Your task to perform on an android device: Go to display settings Image 0: 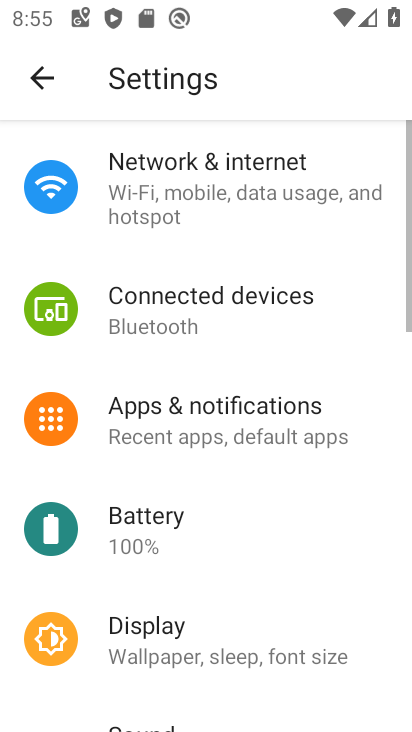
Step 0: click (150, 625)
Your task to perform on an android device: Go to display settings Image 1: 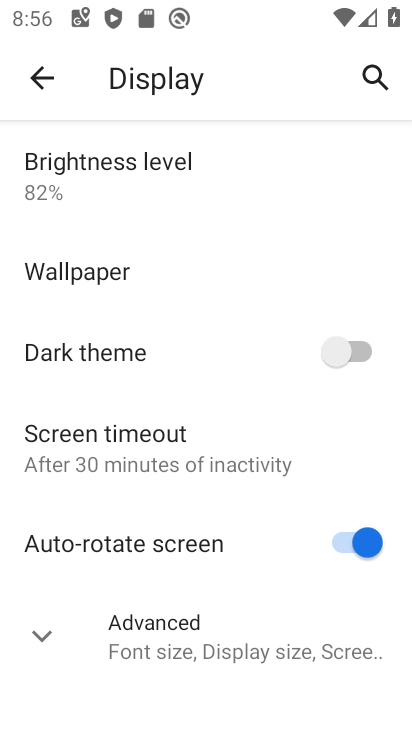
Step 1: task complete